Your task to perform on an android device: Go to accessibility settings Image 0: 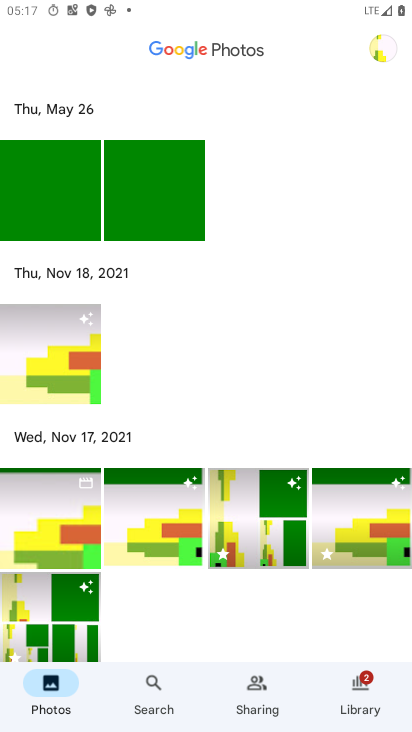
Step 0: press home button
Your task to perform on an android device: Go to accessibility settings Image 1: 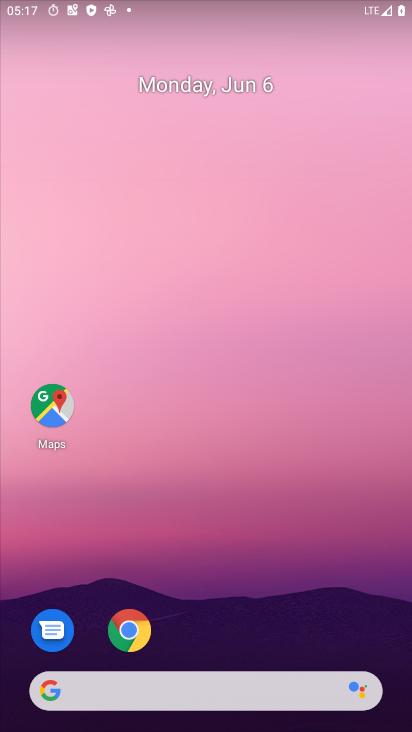
Step 1: drag from (277, 610) to (354, 55)
Your task to perform on an android device: Go to accessibility settings Image 2: 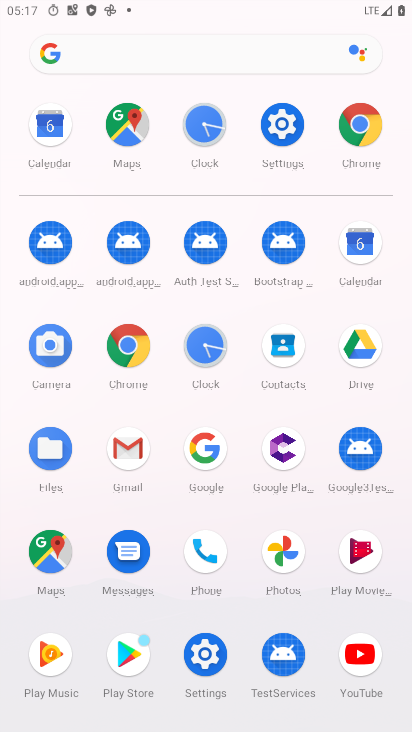
Step 2: click (214, 645)
Your task to perform on an android device: Go to accessibility settings Image 3: 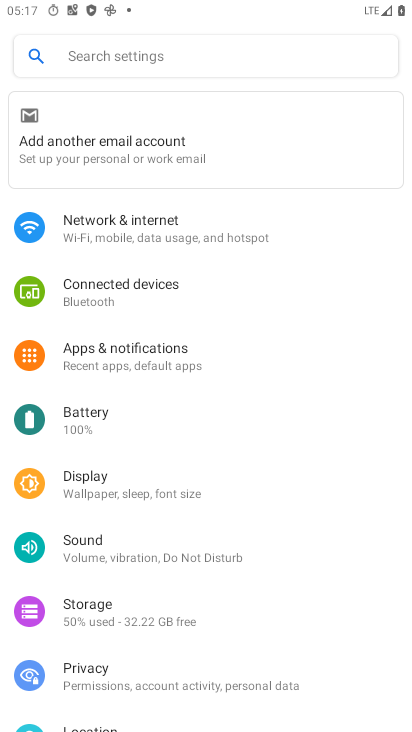
Step 3: drag from (223, 653) to (264, 199)
Your task to perform on an android device: Go to accessibility settings Image 4: 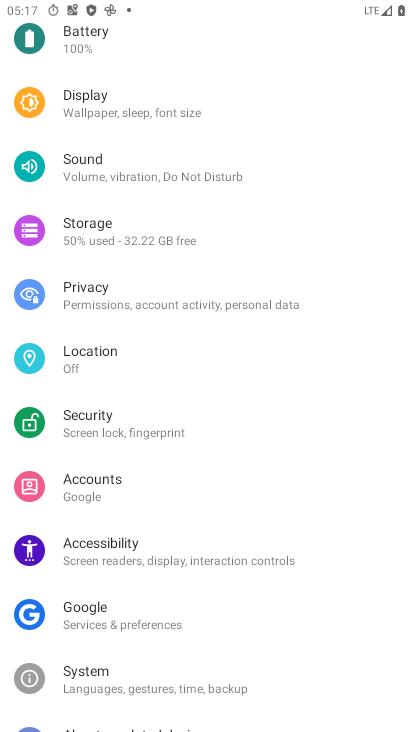
Step 4: click (81, 545)
Your task to perform on an android device: Go to accessibility settings Image 5: 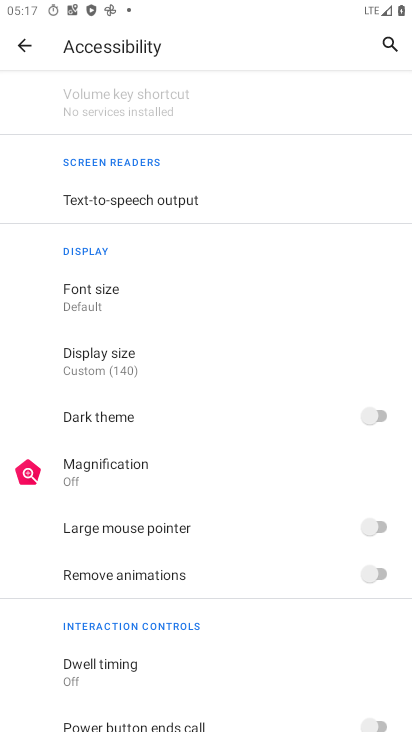
Step 5: task complete